Your task to perform on an android device: Go to battery settings Image 0: 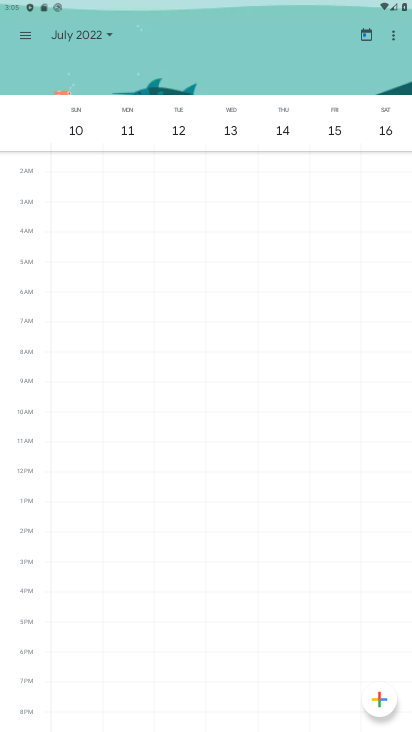
Step 0: press home button
Your task to perform on an android device: Go to battery settings Image 1: 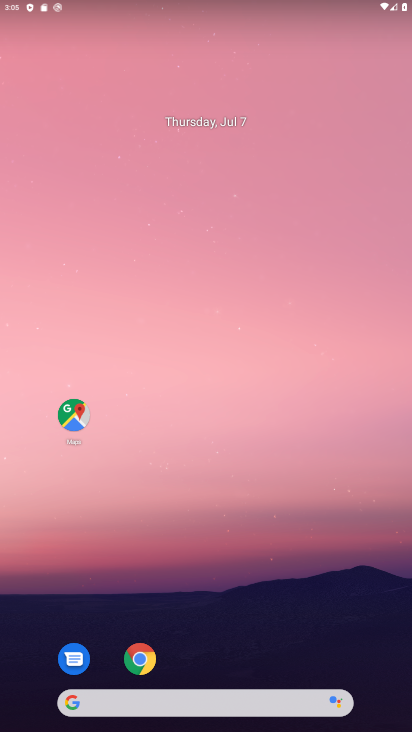
Step 1: drag from (282, 648) to (181, 179)
Your task to perform on an android device: Go to battery settings Image 2: 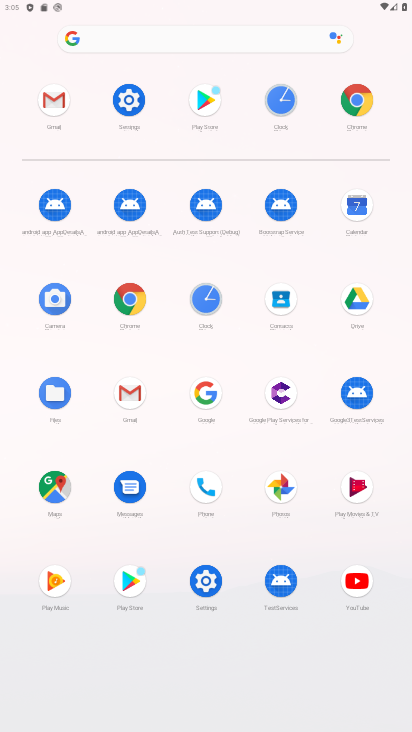
Step 2: click (131, 102)
Your task to perform on an android device: Go to battery settings Image 3: 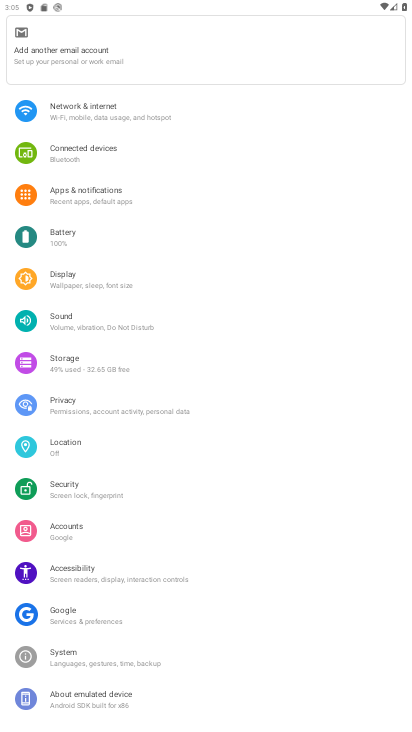
Step 3: click (118, 237)
Your task to perform on an android device: Go to battery settings Image 4: 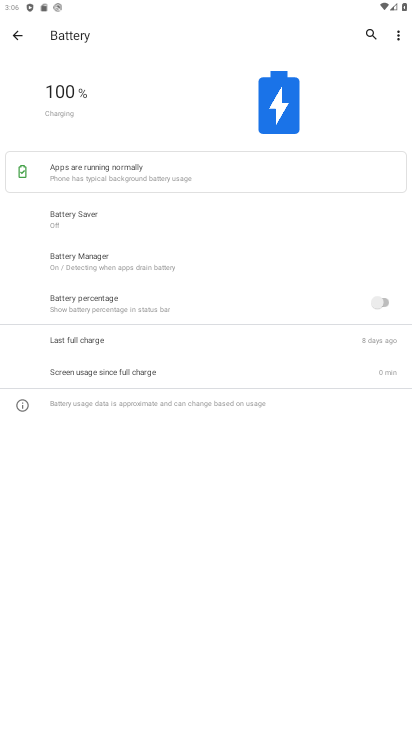
Step 4: task complete